Your task to perform on an android device: Go to internet settings Image 0: 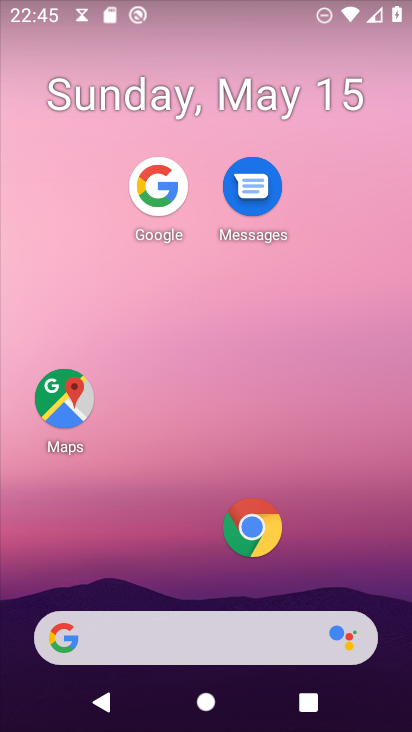
Step 0: drag from (173, 569) to (271, 163)
Your task to perform on an android device: Go to internet settings Image 1: 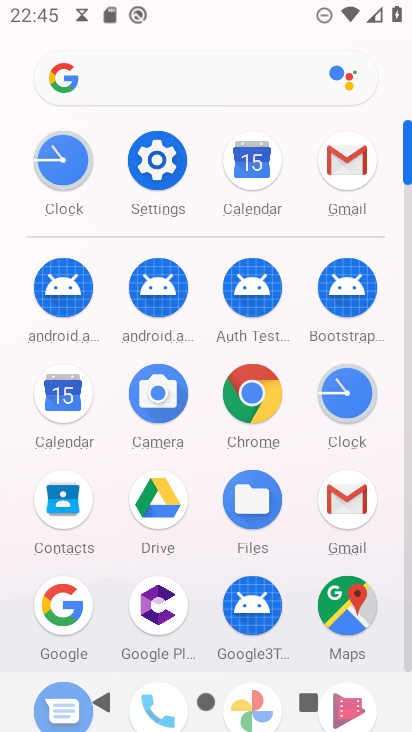
Step 1: click (157, 178)
Your task to perform on an android device: Go to internet settings Image 2: 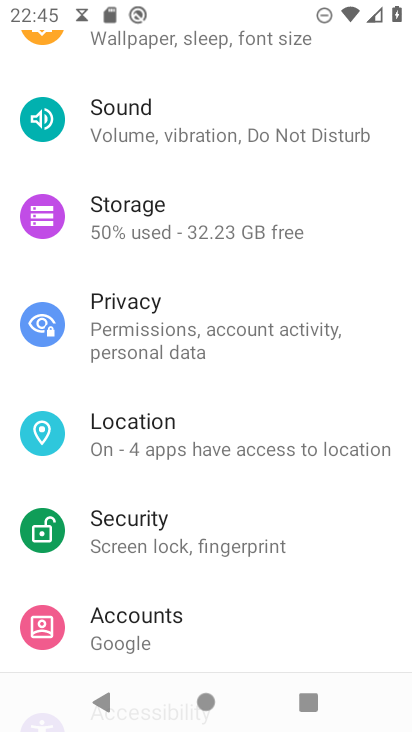
Step 2: drag from (284, 103) to (274, 474)
Your task to perform on an android device: Go to internet settings Image 3: 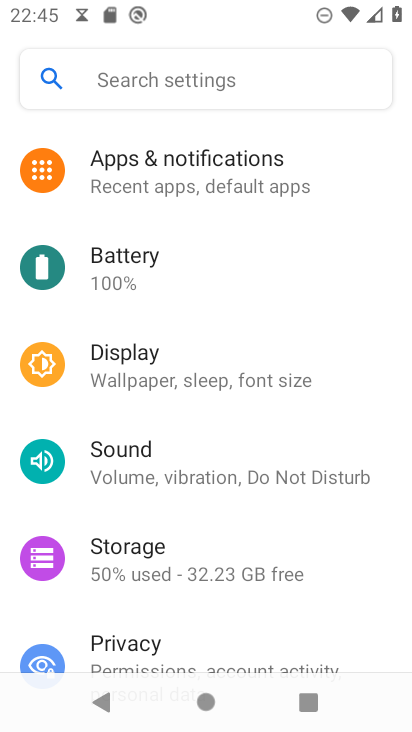
Step 3: drag from (247, 260) to (223, 595)
Your task to perform on an android device: Go to internet settings Image 4: 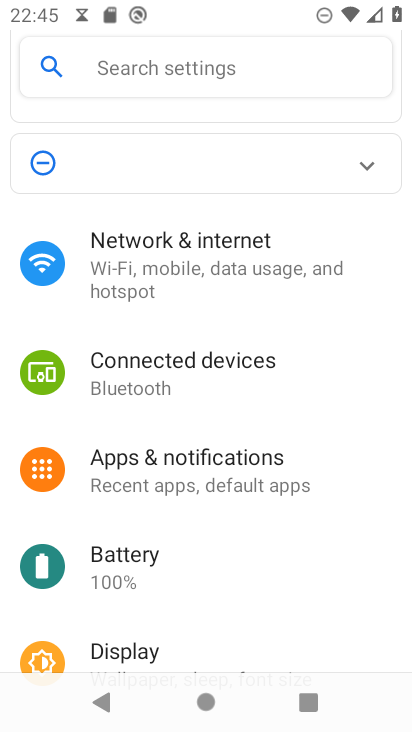
Step 4: click (201, 260)
Your task to perform on an android device: Go to internet settings Image 5: 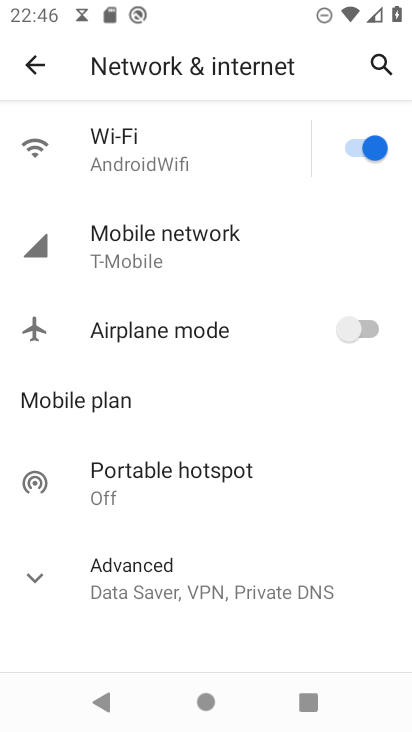
Step 5: task complete